Your task to perform on an android device: turn notification dots on Image 0: 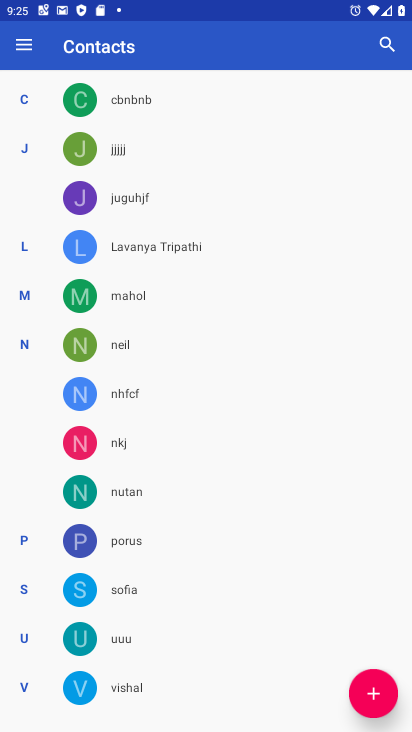
Step 0: press home button
Your task to perform on an android device: turn notification dots on Image 1: 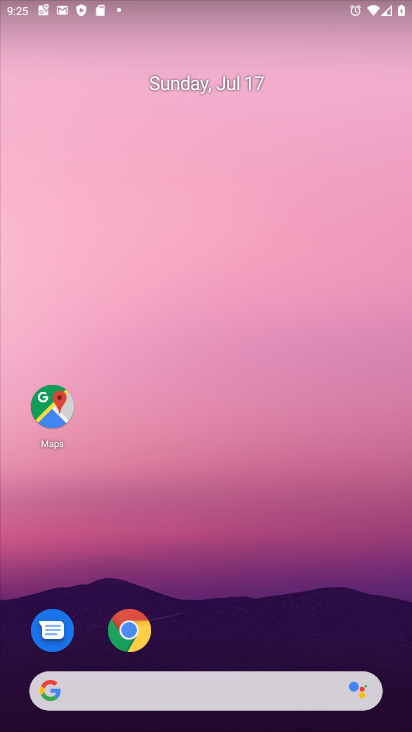
Step 1: drag from (346, 604) to (349, 109)
Your task to perform on an android device: turn notification dots on Image 2: 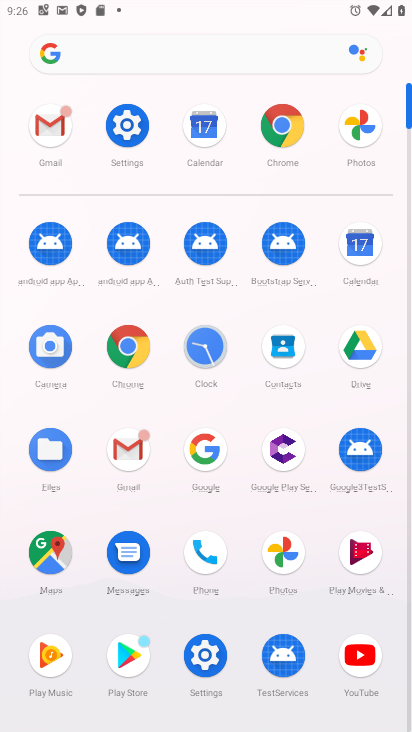
Step 2: click (121, 135)
Your task to perform on an android device: turn notification dots on Image 3: 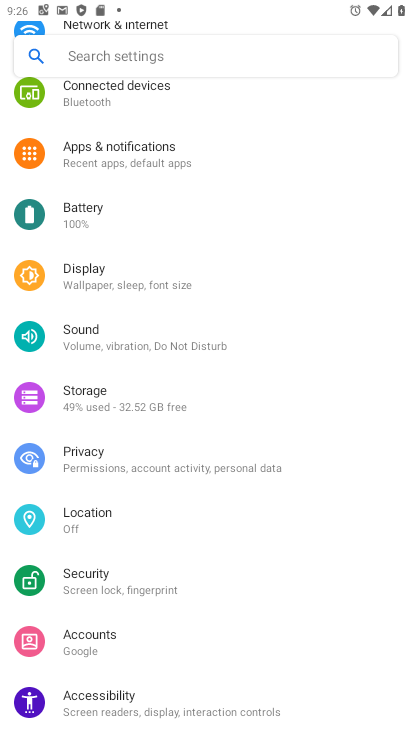
Step 3: drag from (308, 244) to (319, 369)
Your task to perform on an android device: turn notification dots on Image 4: 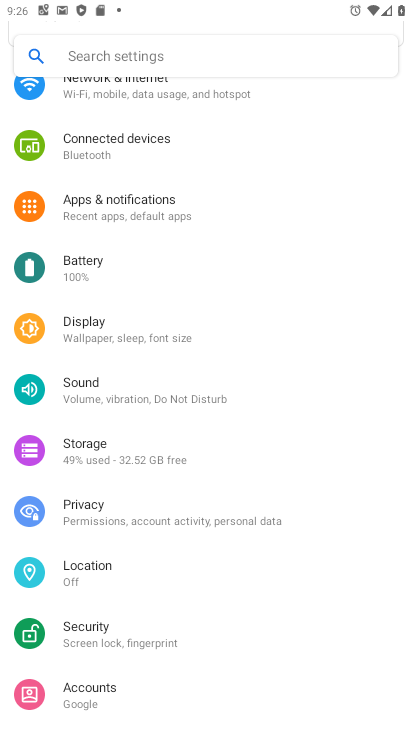
Step 4: drag from (319, 181) to (328, 316)
Your task to perform on an android device: turn notification dots on Image 5: 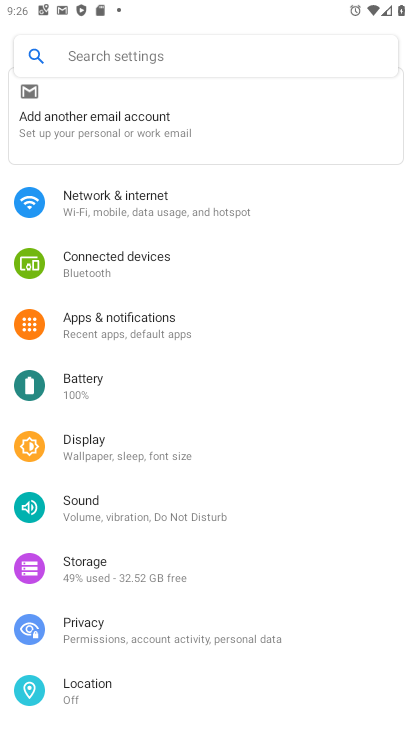
Step 5: drag from (332, 210) to (325, 359)
Your task to perform on an android device: turn notification dots on Image 6: 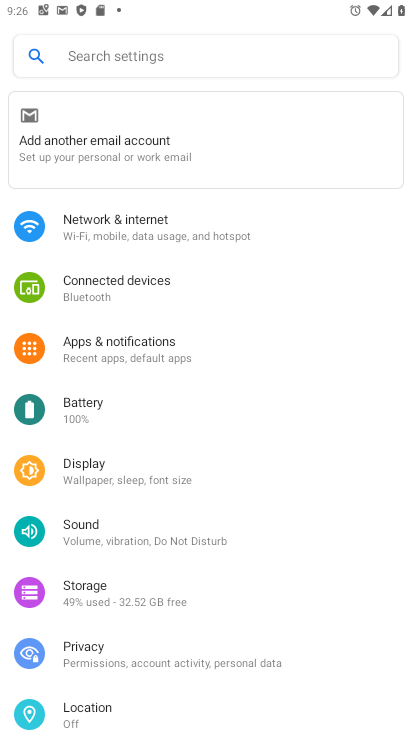
Step 6: drag from (300, 466) to (305, 384)
Your task to perform on an android device: turn notification dots on Image 7: 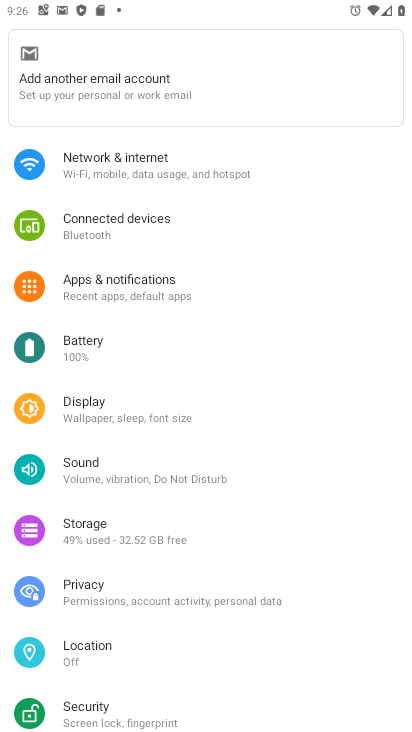
Step 7: click (221, 299)
Your task to perform on an android device: turn notification dots on Image 8: 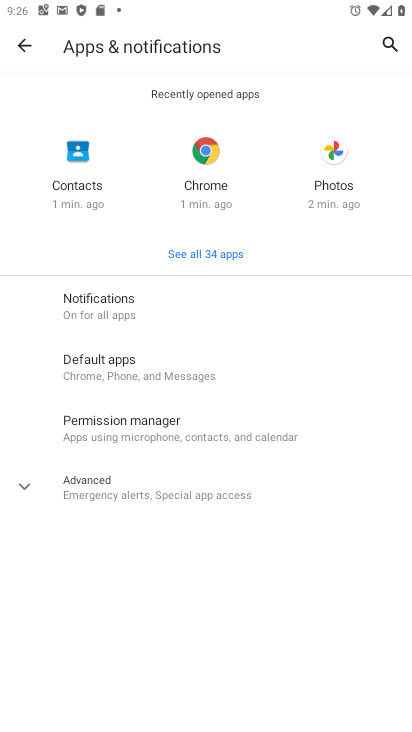
Step 8: click (169, 322)
Your task to perform on an android device: turn notification dots on Image 9: 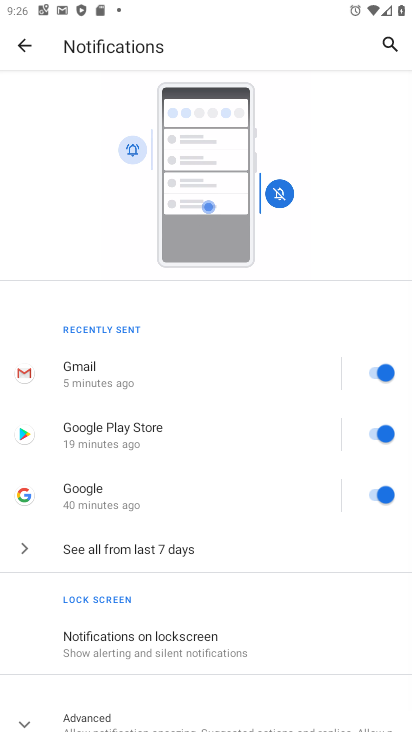
Step 9: drag from (287, 477) to (292, 398)
Your task to perform on an android device: turn notification dots on Image 10: 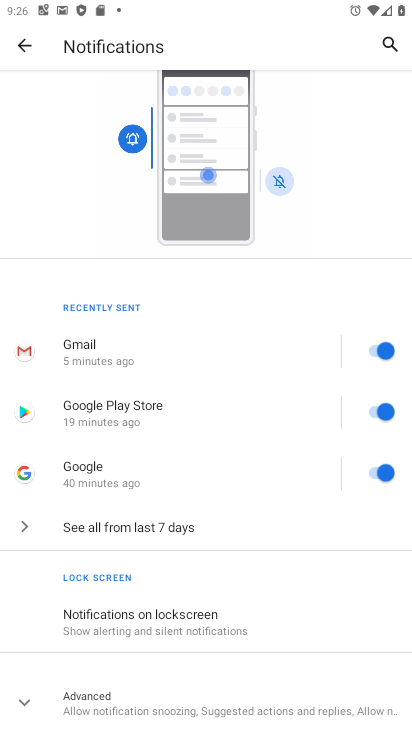
Step 10: click (254, 685)
Your task to perform on an android device: turn notification dots on Image 11: 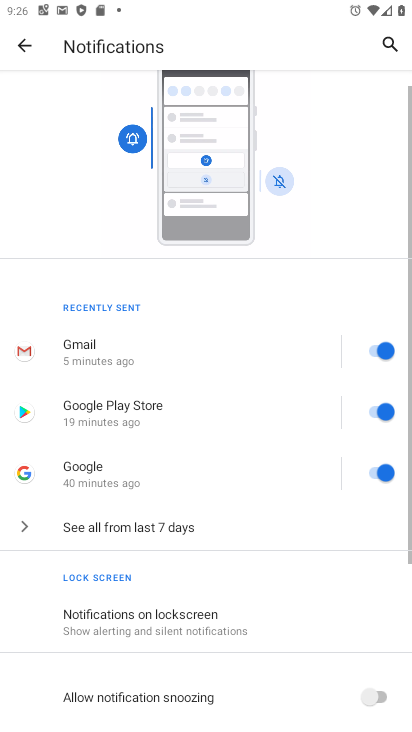
Step 11: task complete